Your task to perform on an android device: empty trash in the gmail app Image 0: 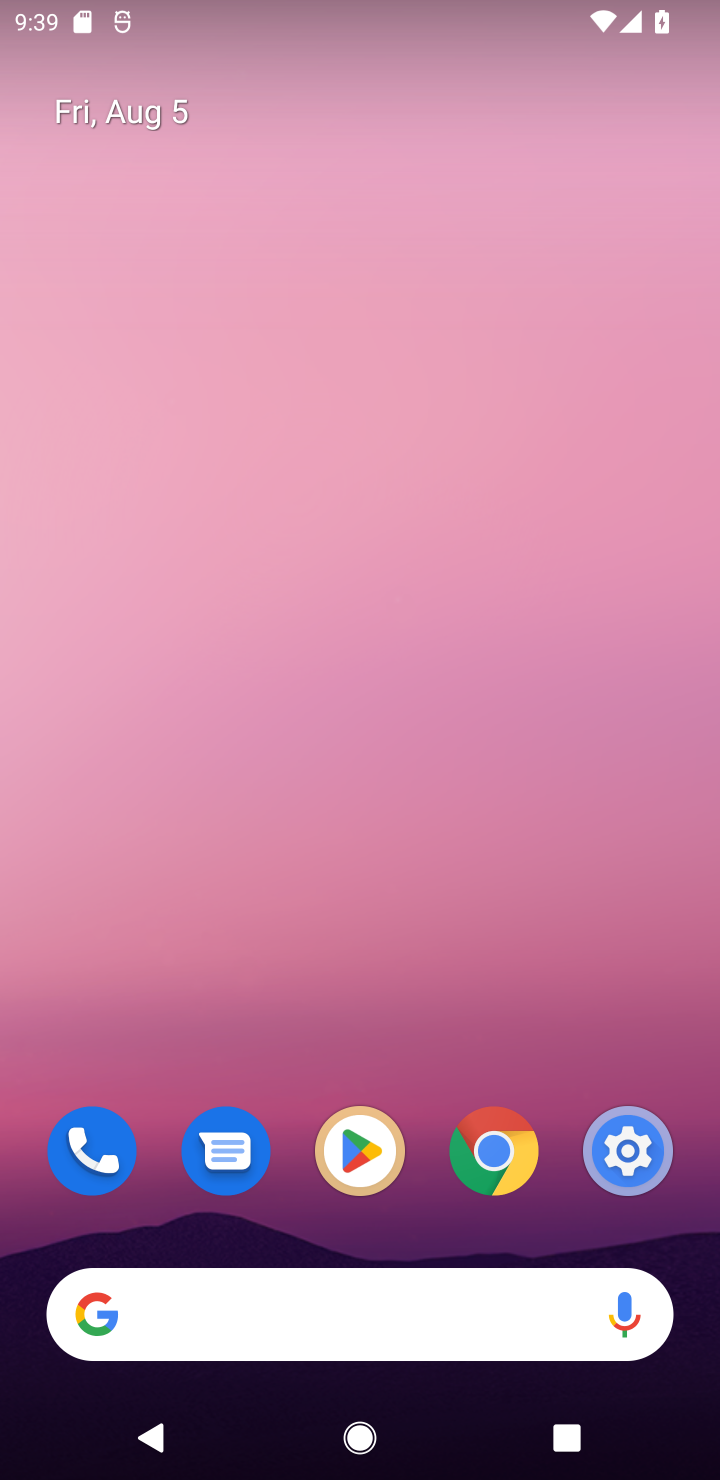
Step 0: drag from (361, 997) to (394, 120)
Your task to perform on an android device: empty trash in the gmail app Image 1: 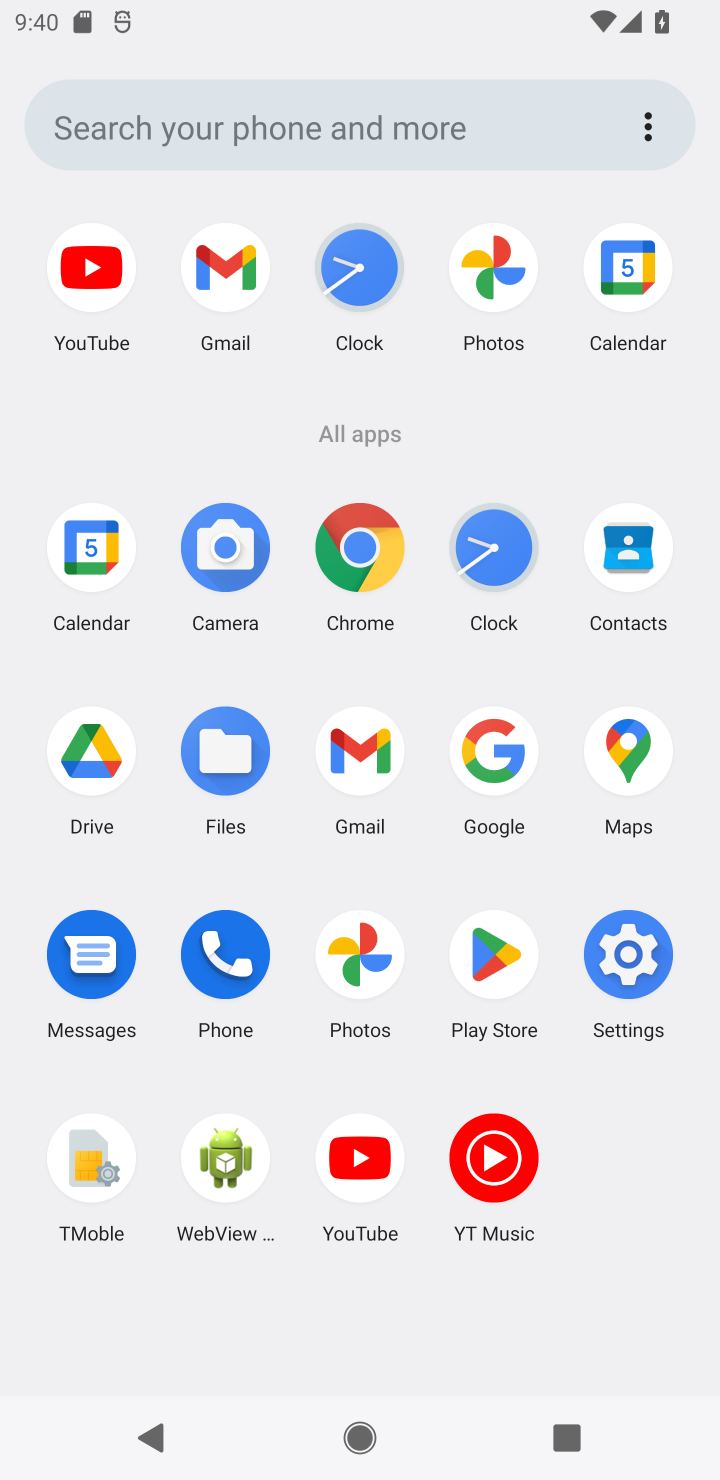
Step 1: drag from (305, 799) to (353, 382)
Your task to perform on an android device: empty trash in the gmail app Image 2: 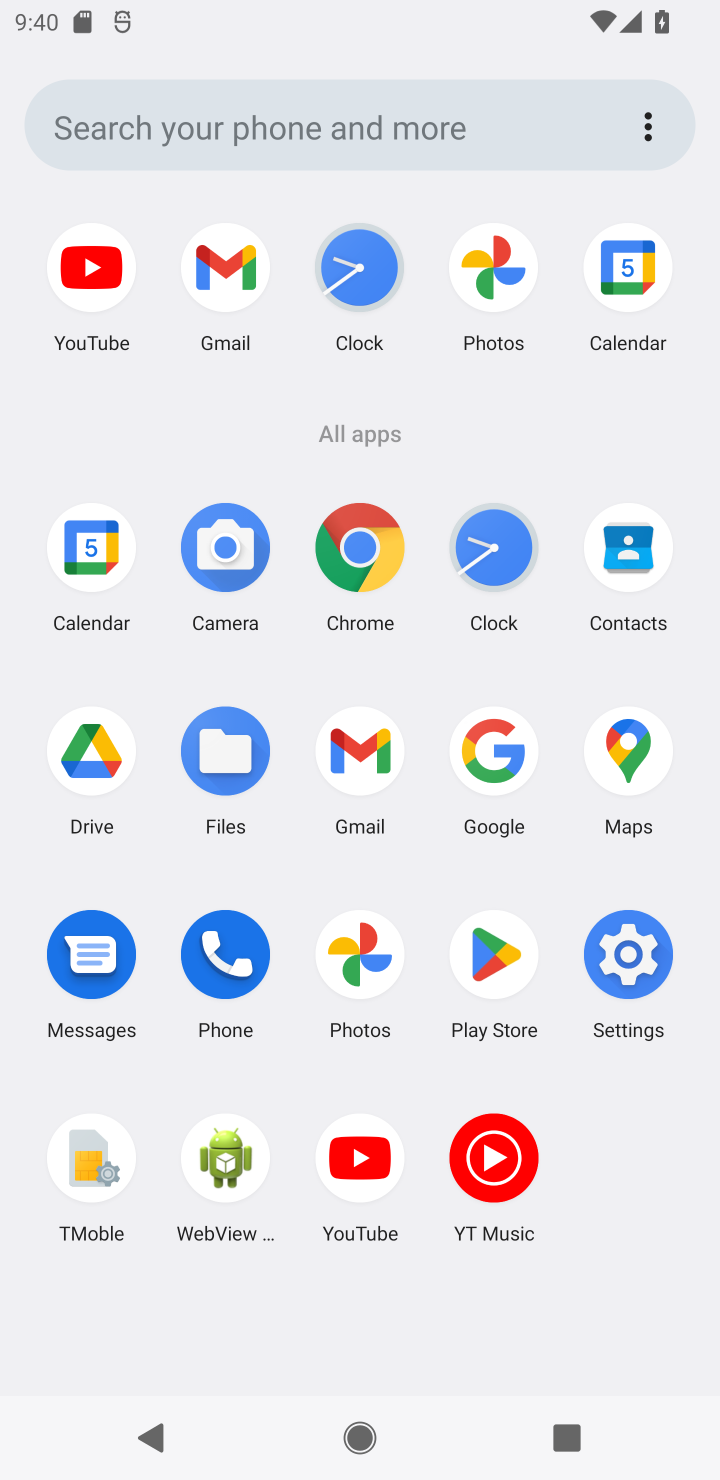
Step 2: click (354, 729)
Your task to perform on an android device: empty trash in the gmail app Image 3: 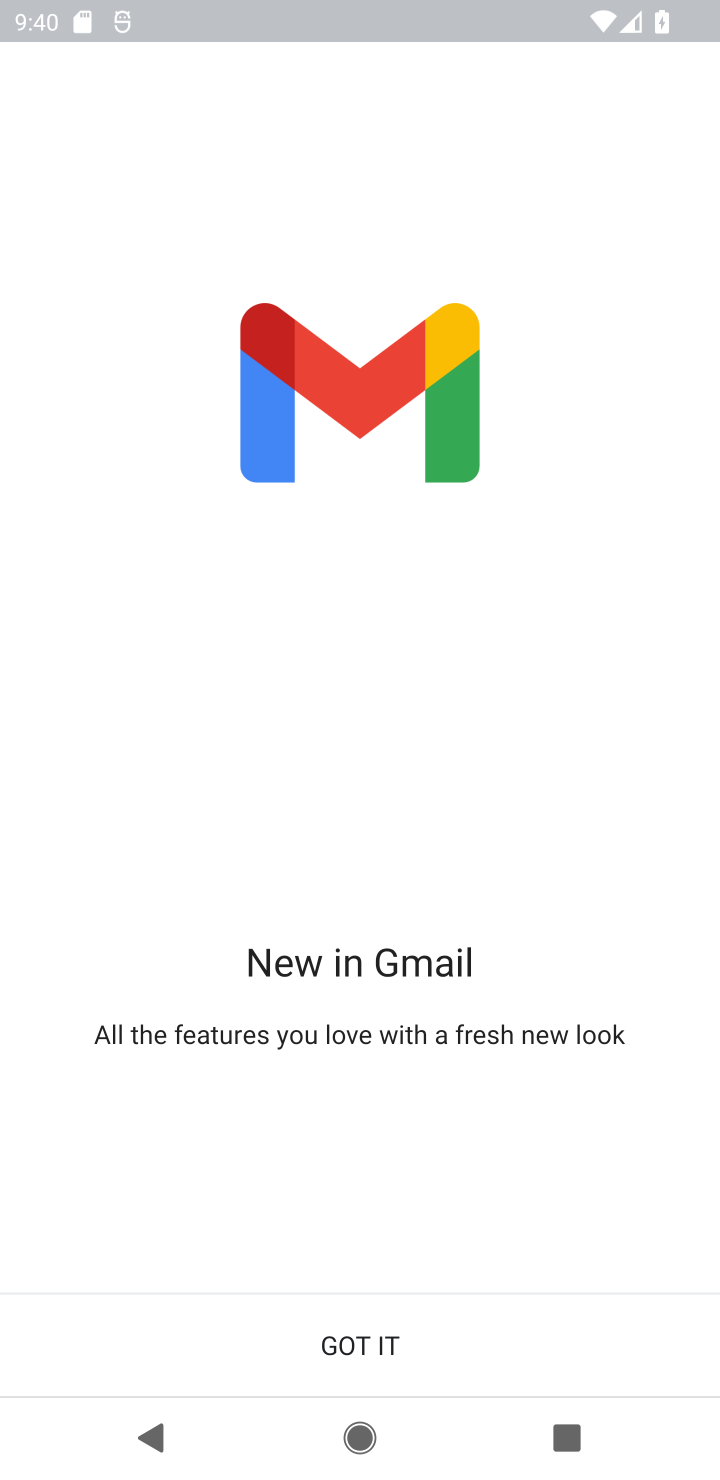
Step 3: click (354, 1350)
Your task to perform on an android device: empty trash in the gmail app Image 4: 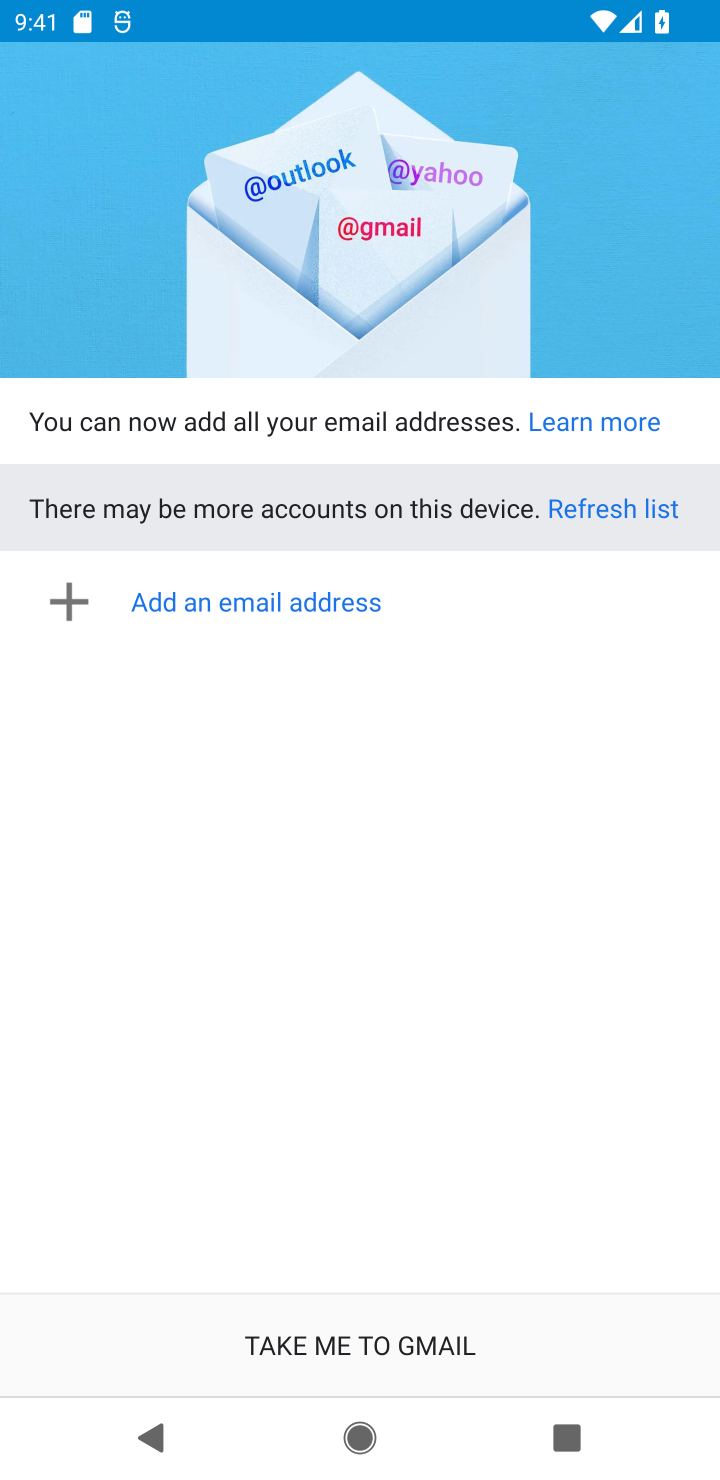
Step 4: click (247, 1337)
Your task to perform on an android device: empty trash in the gmail app Image 5: 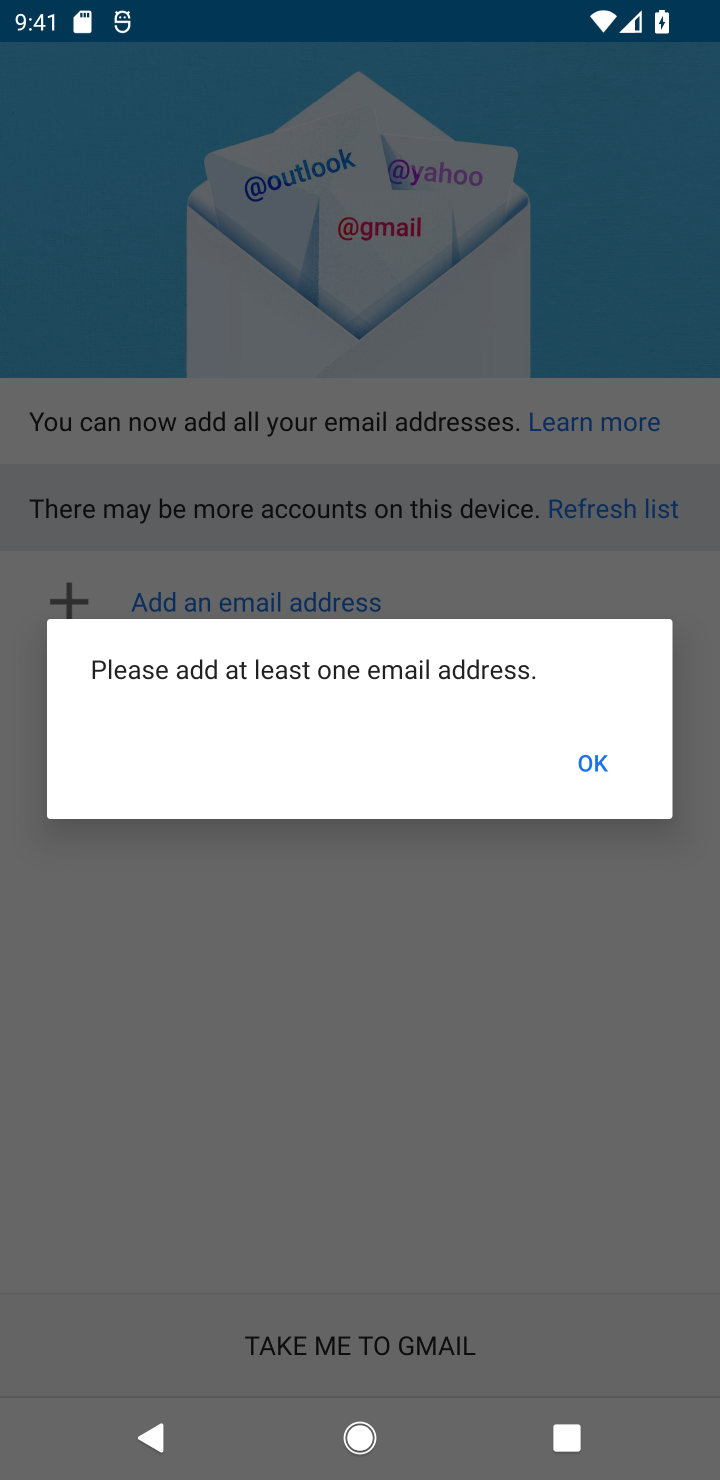
Step 5: task complete